Your task to perform on an android device: open app "Spotify" (install if not already installed), go to login, and select forgot password Image 0: 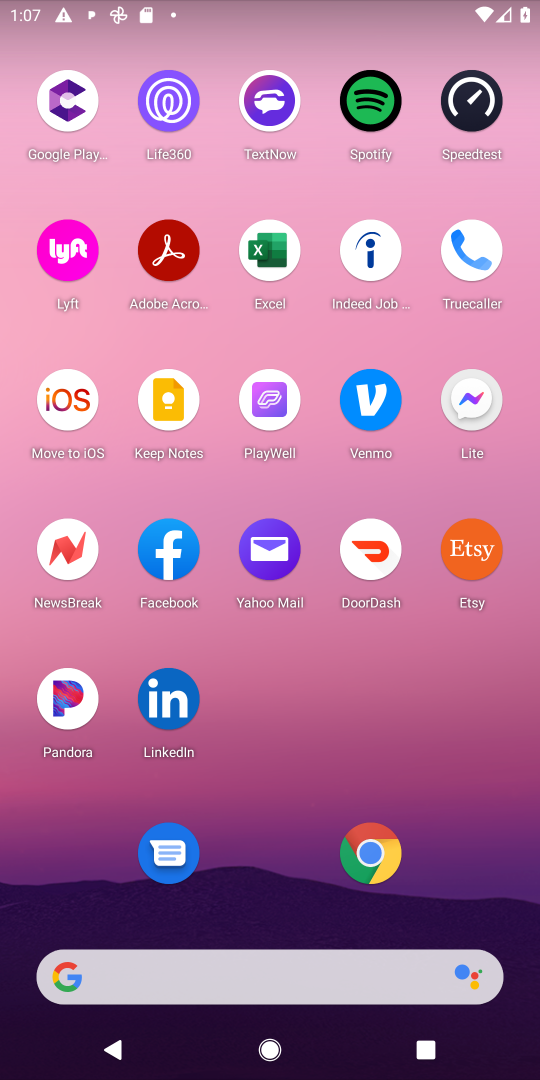
Step 0: drag from (259, 878) to (251, 68)
Your task to perform on an android device: open app "Spotify" (install if not already installed), go to login, and select forgot password Image 1: 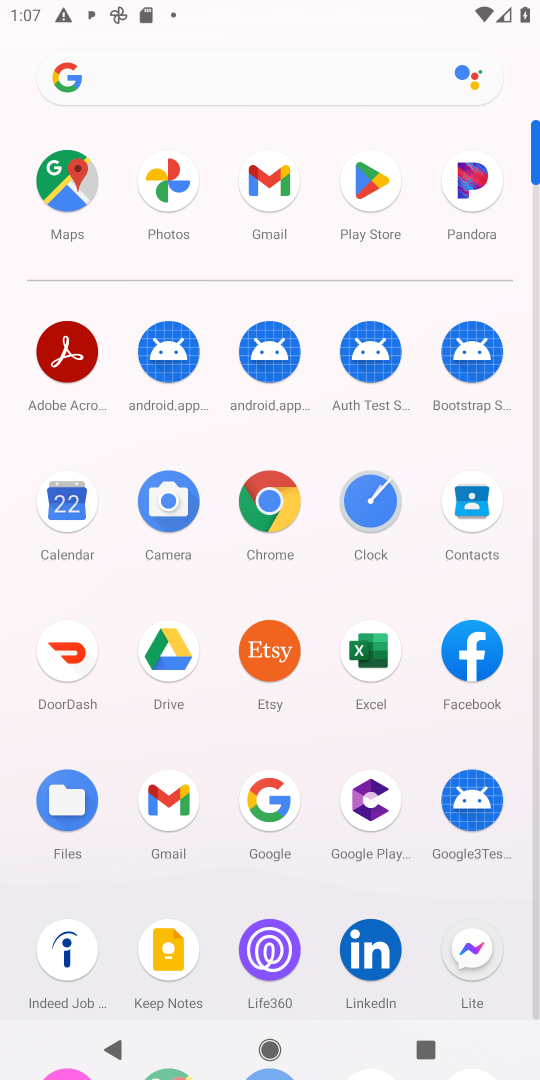
Step 1: click (373, 180)
Your task to perform on an android device: open app "Spotify" (install if not already installed), go to login, and select forgot password Image 2: 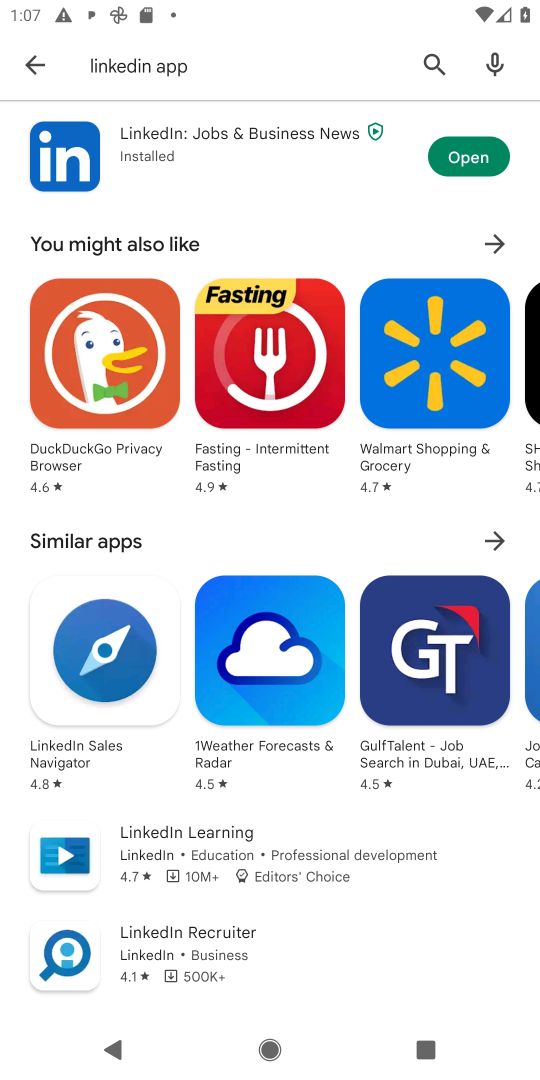
Step 2: click (24, 62)
Your task to perform on an android device: open app "Spotify" (install if not already installed), go to login, and select forgot password Image 3: 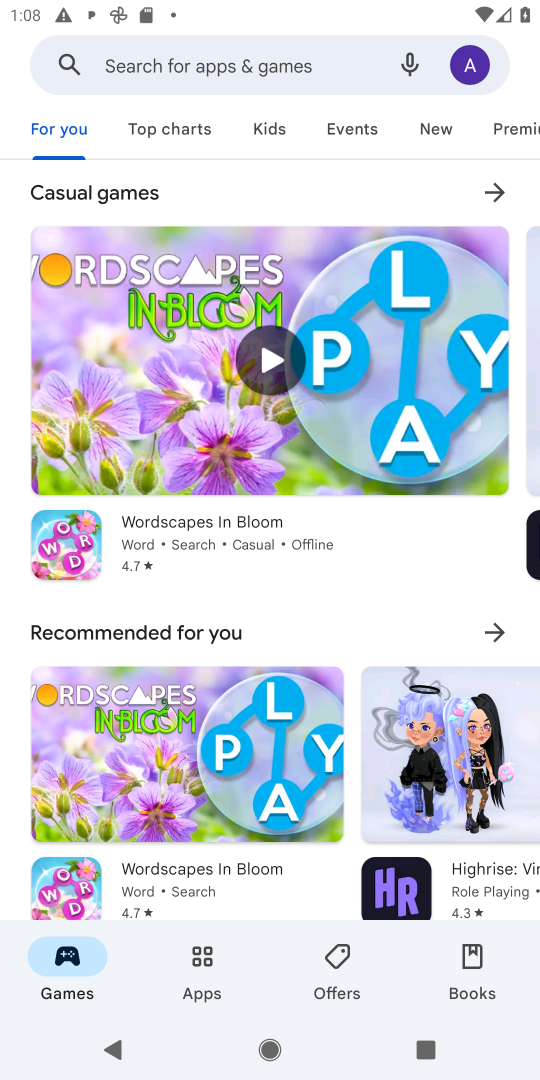
Step 3: click (207, 51)
Your task to perform on an android device: open app "Spotify" (install if not already installed), go to login, and select forgot password Image 4: 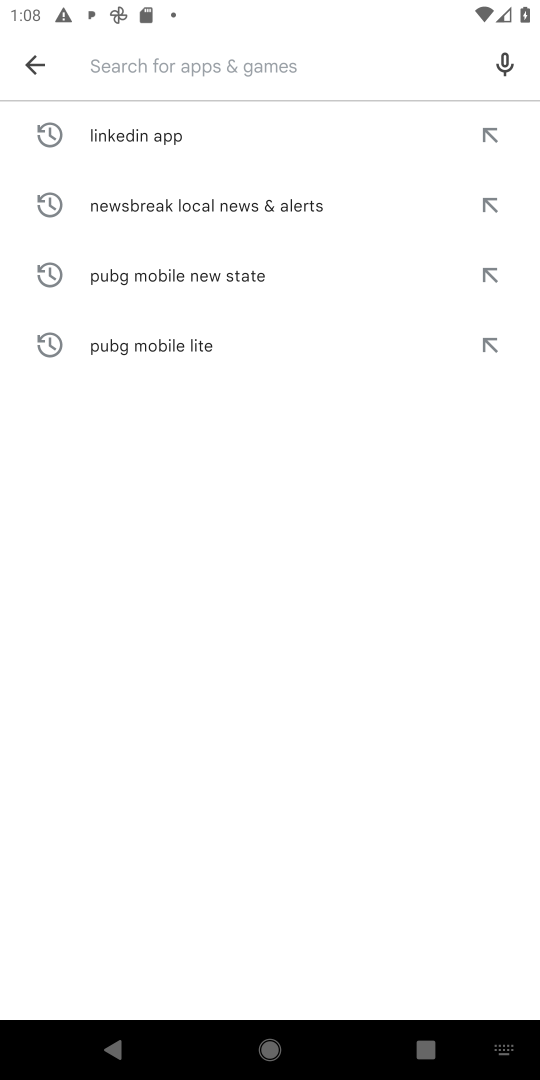
Step 4: type "Spotify "
Your task to perform on an android device: open app "Spotify" (install if not already installed), go to login, and select forgot password Image 5: 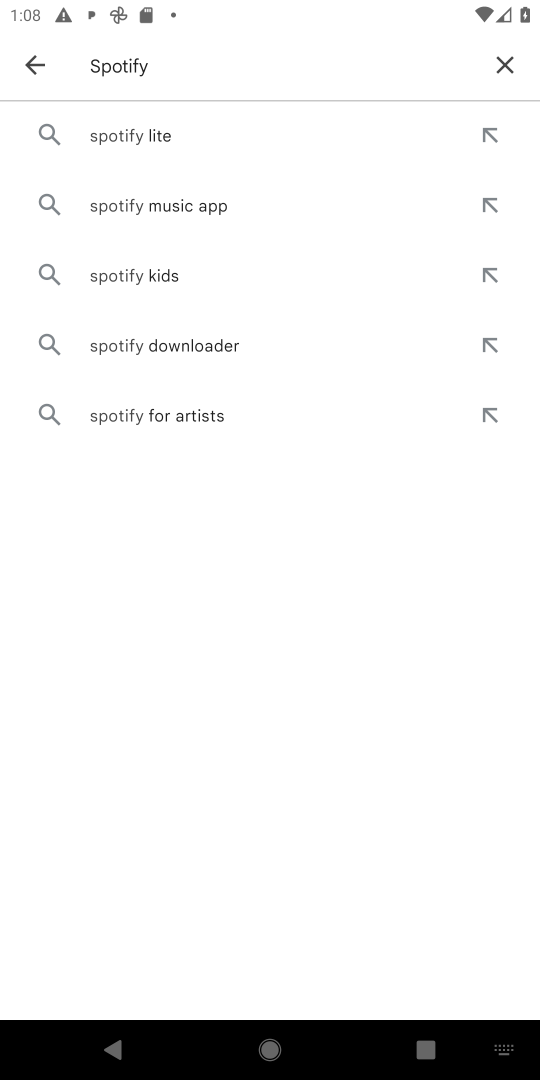
Step 5: click (169, 214)
Your task to perform on an android device: open app "Spotify" (install if not already installed), go to login, and select forgot password Image 6: 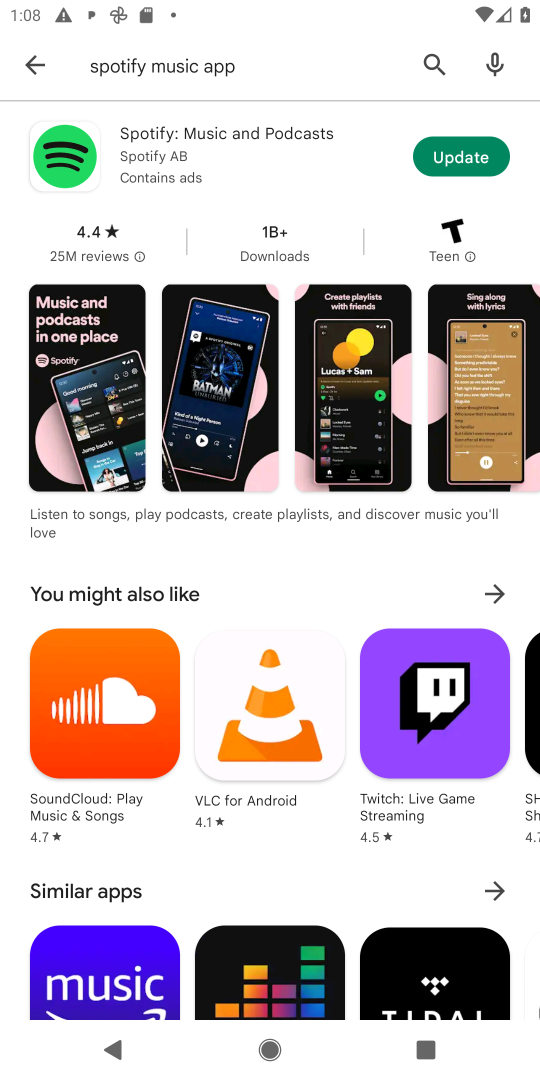
Step 6: click (466, 156)
Your task to perform on an android device: open app "Spotify" (install if not already installed), go to login, and select forgot password Image 7: 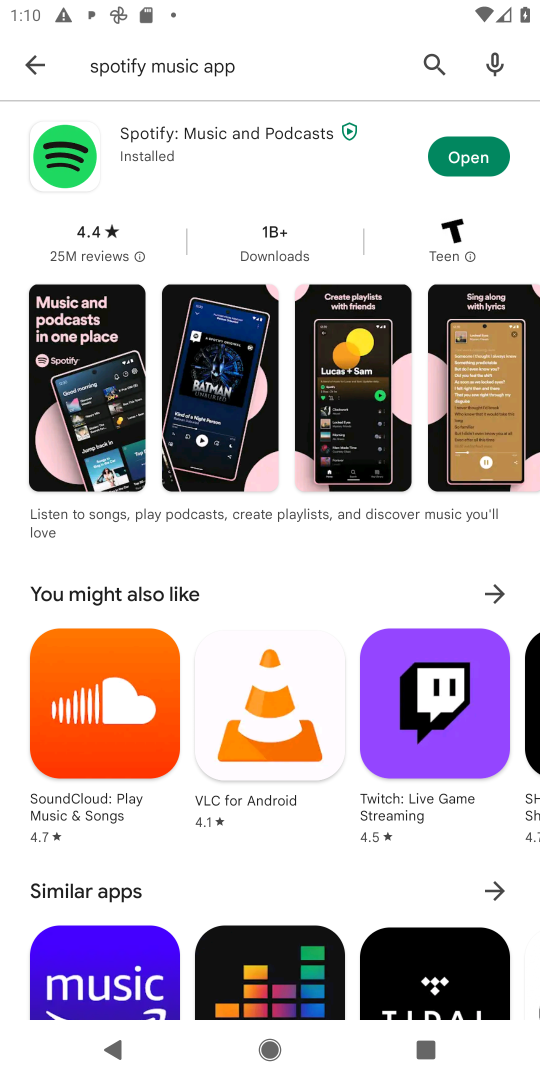
Step 7: click (452, 150)
Your task to perform on an android device: open app "Spotify" (install if not already installed), go to login, and select forgot password Image 8: 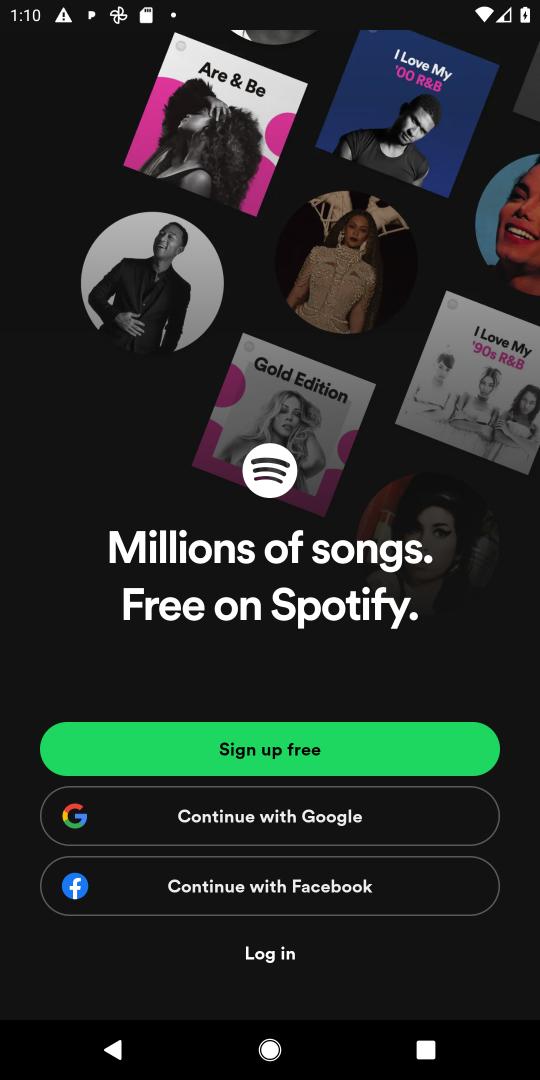
Step 8: task complete